Your task to perform on an android device: check android version Image 0: 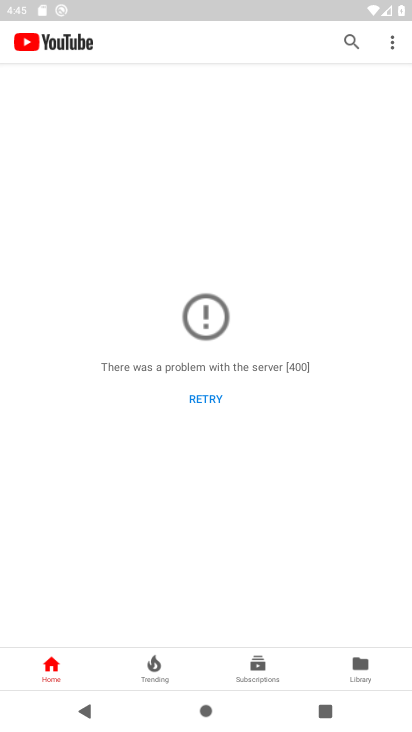
Step 0: press home button
Your task to perform on an android device: check android version Image 1: 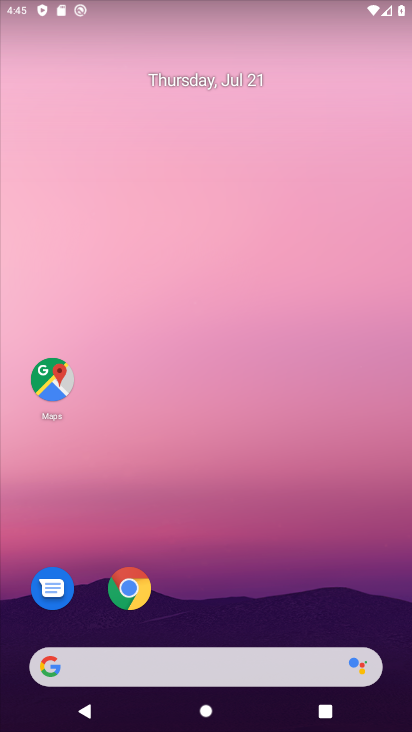
Step 1: drag from (292, 591) to (197, 34)
Your task to perform on an android device: check android version Image 2: 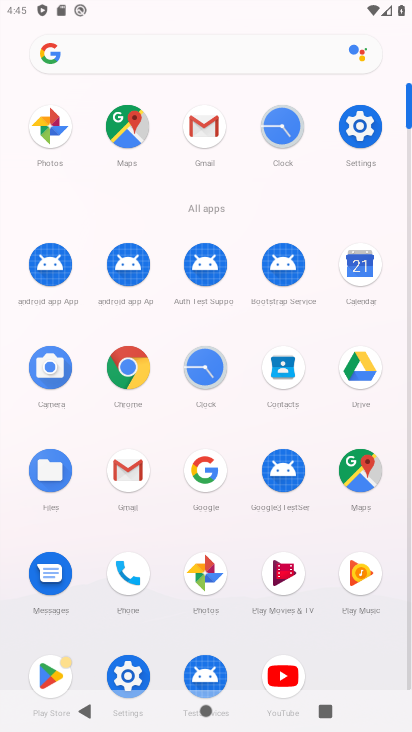
Step 2: click (371, 134)
Your task to perform on an android device: check android version Image 3: 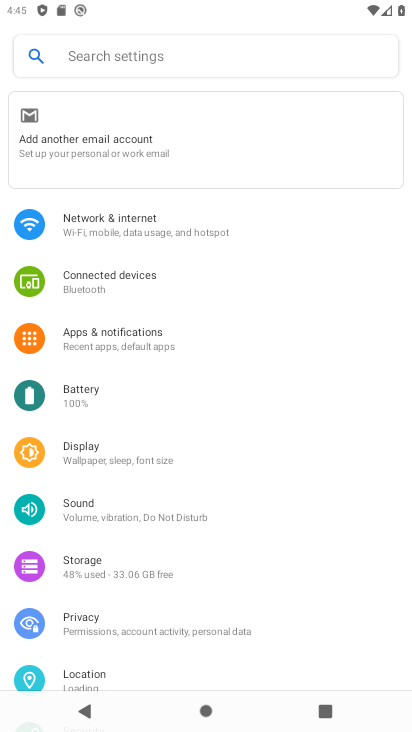
Step 3: drag from (305, 663) to (201, 127)
Your task to perform on an android device: check android version Image 4: 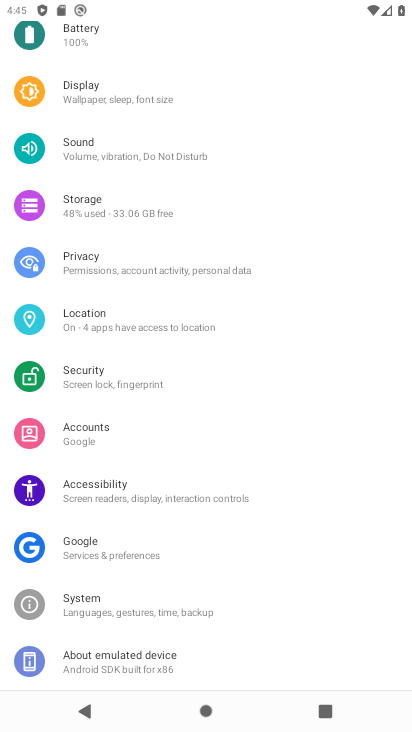
Step 4: click (165, 671)
Your task to perform on an android device: check android version Image 5: 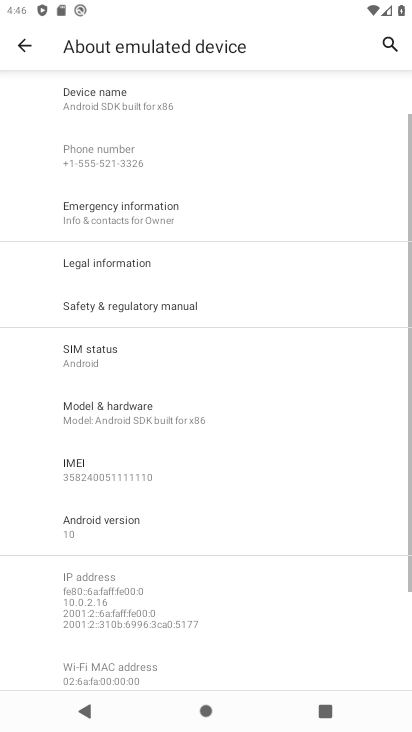
Step 5: click (193, 512)
Your task to perform on an android device: check android version Image 6: 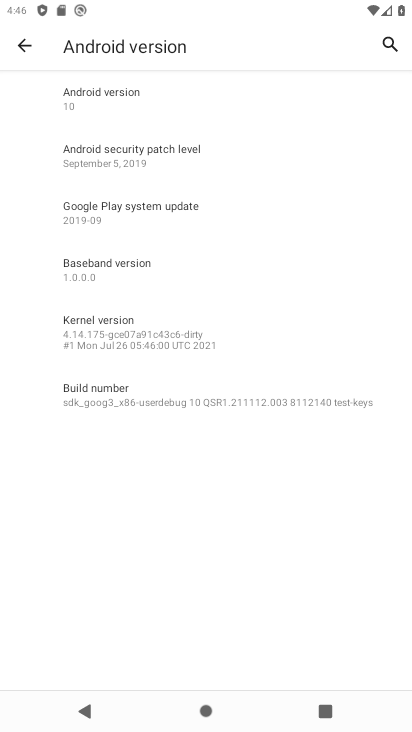
Step 6: task complete